Your task to perform on an android device: Search for sushi restaurants on Maps Image 0: 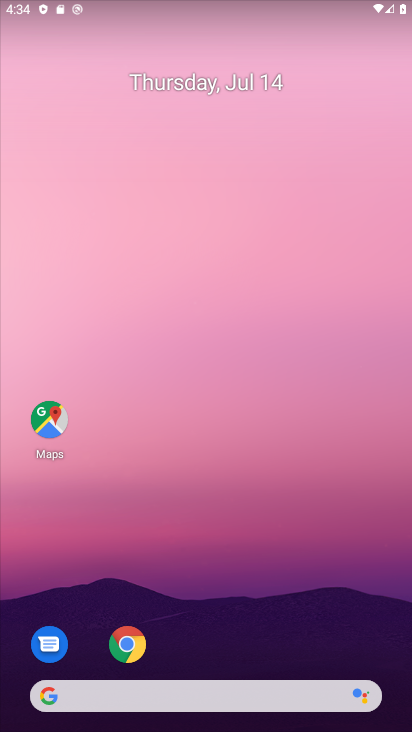
Step 0: drag from (279, 607) to (249, 104)
Your task to perform on an android device: Search for sushi restaurants on Maps Image 1: 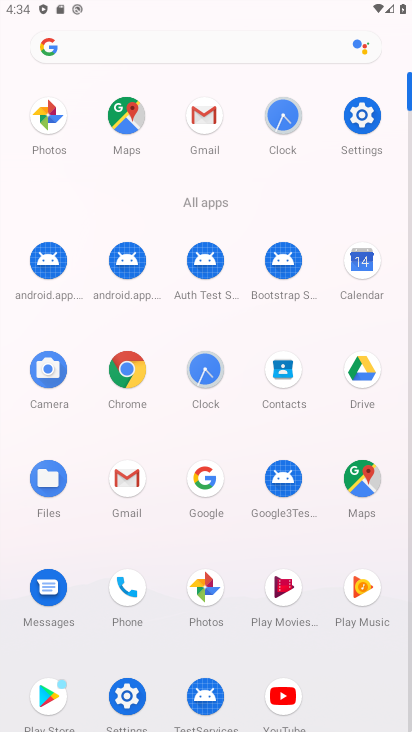
Step 1: click (112, 118)
Your task to perform on an android device: Search for sushi restaurants on Maps Image 2: 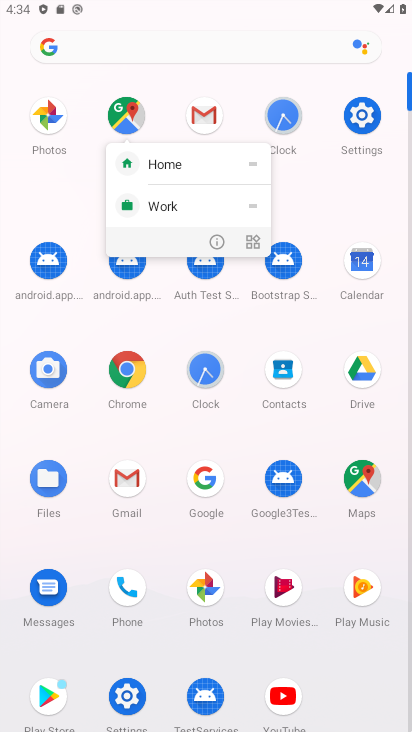
Step 2: click (112, 118)
Your task to perform on an android device: Search for sushi restaurants on Maps Image 3: 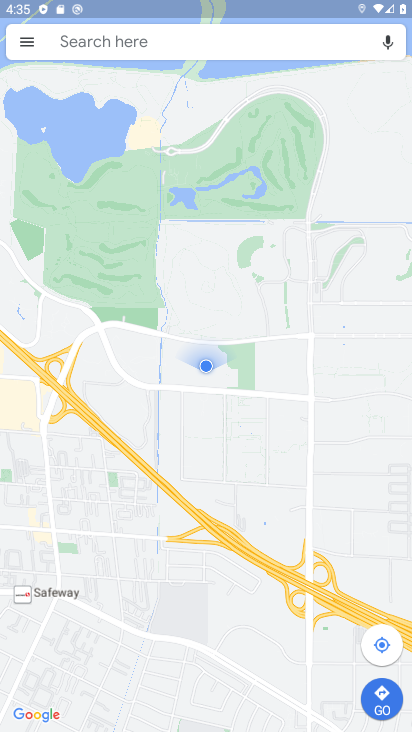
Step 3: click (160, 35)
Your task to perform on an android device: Search for sushi restaurants on Maps Image 4: 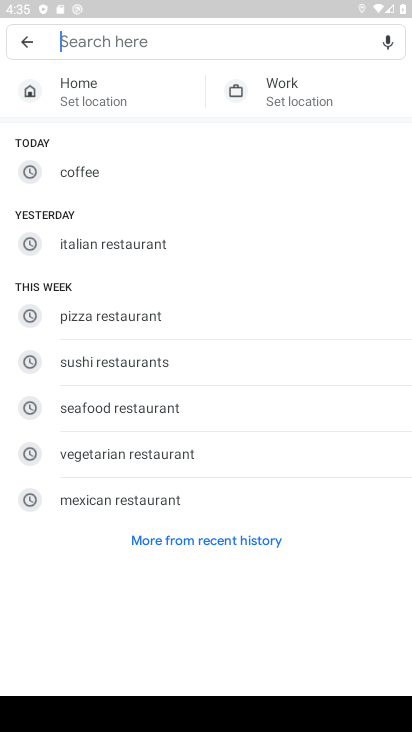
Step 4: click (180, 363)
Your task to perform on an android device: Search for sushi restaurants on Maps Image 5: 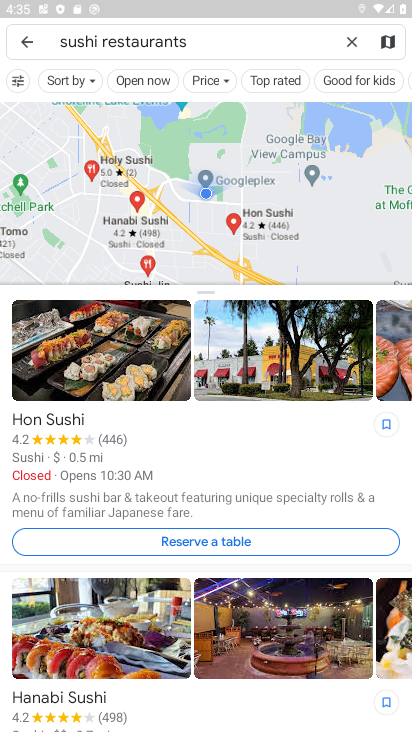
Step 5: task complete